Your task to perform on an android device: Go to wifi settings Image 0: 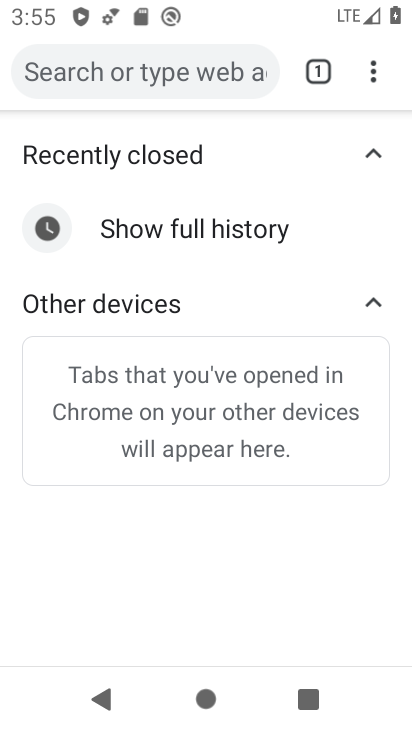
Step 0: press home button
Your task to perform on an android device: Go to wifi settings Image 1: 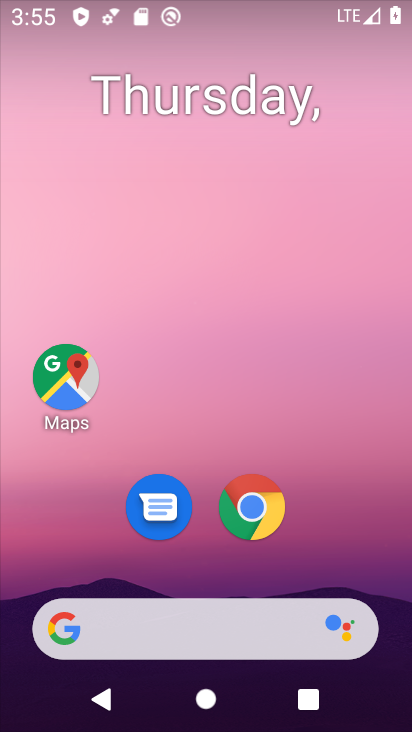
Step 1: drag from (207, 0) to (205, 704)
Your task to perform on an android device: Go to wifi settings Image 2: 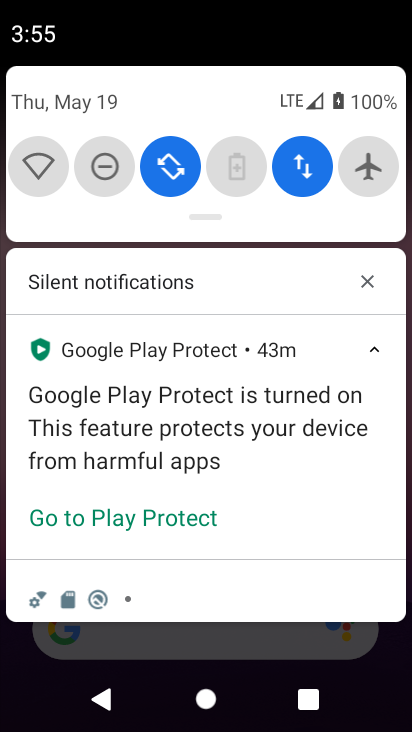
Step 2: click (30, 162)
Your task to perform on an android device: Go to wifi settings Image 3: 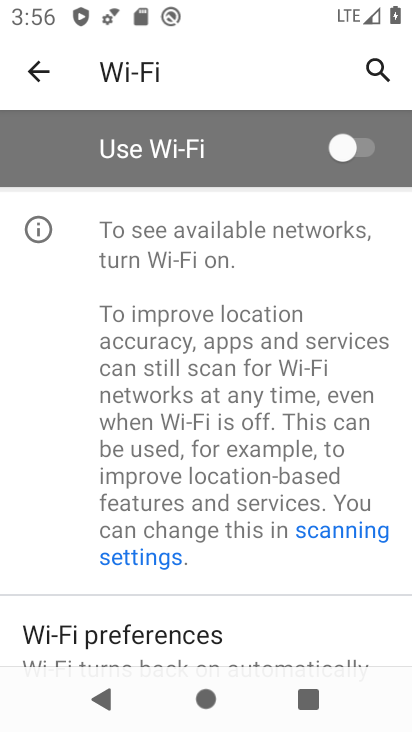
Step 3: task complete